Your task to perform on an android device: Show the shopping cart on amazon.com. Add "macbook pro" to the cart on amazon.com Image 0: 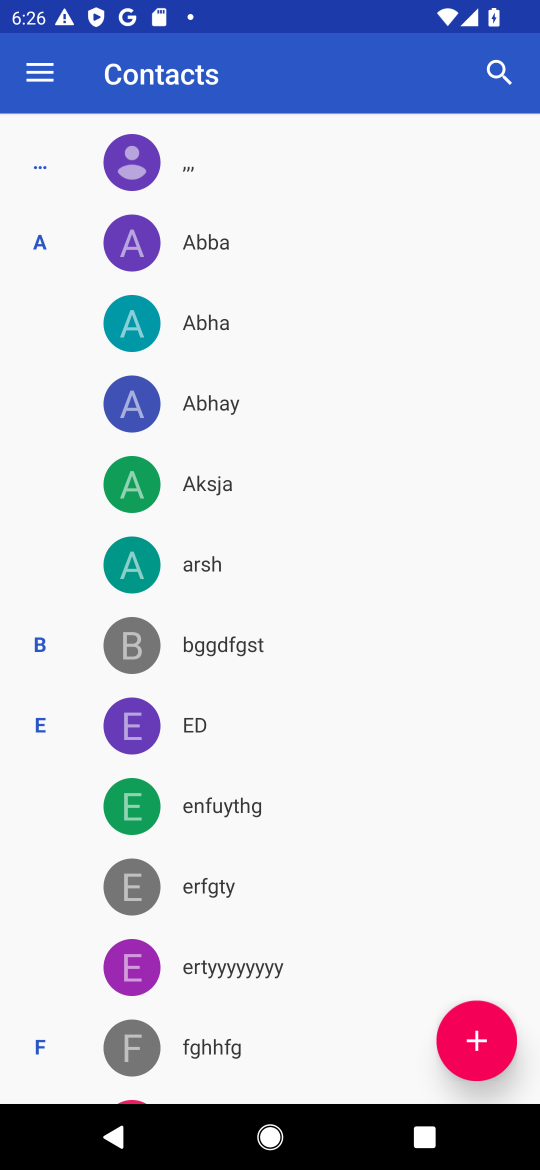
Step 0: press home button
Your task to perform on an android device: Show the shopping cart on amazon.com. Add "macbook pro" to the cart on amazon.com Image 1: 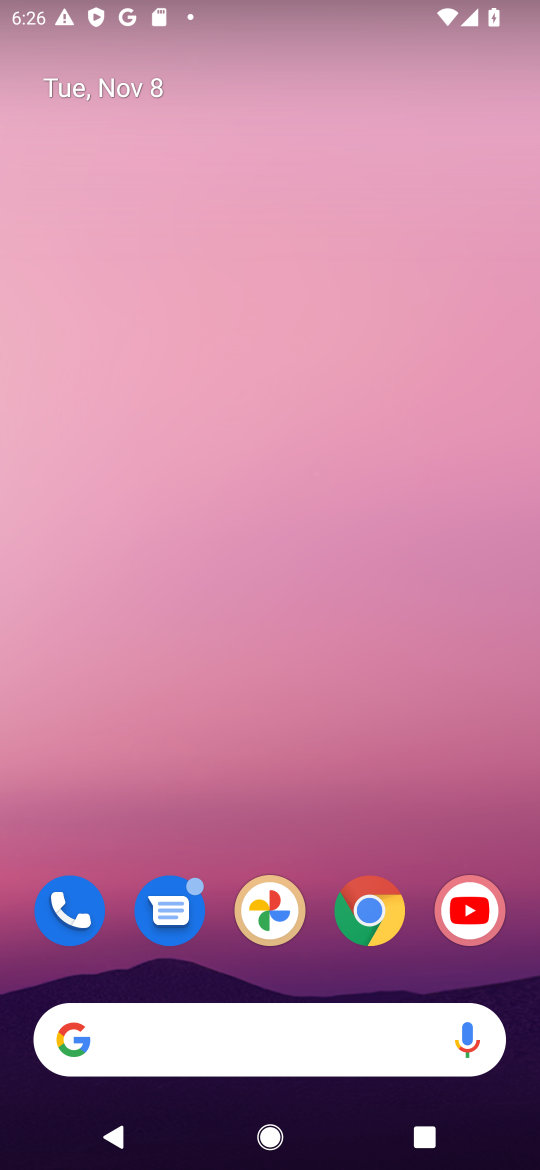
Step 1: click (365, 909)
Your task to perform on an android device: Show the shopping cart on amazon.com. Add "macbook pro" to the cart on amazon.com Image 2: 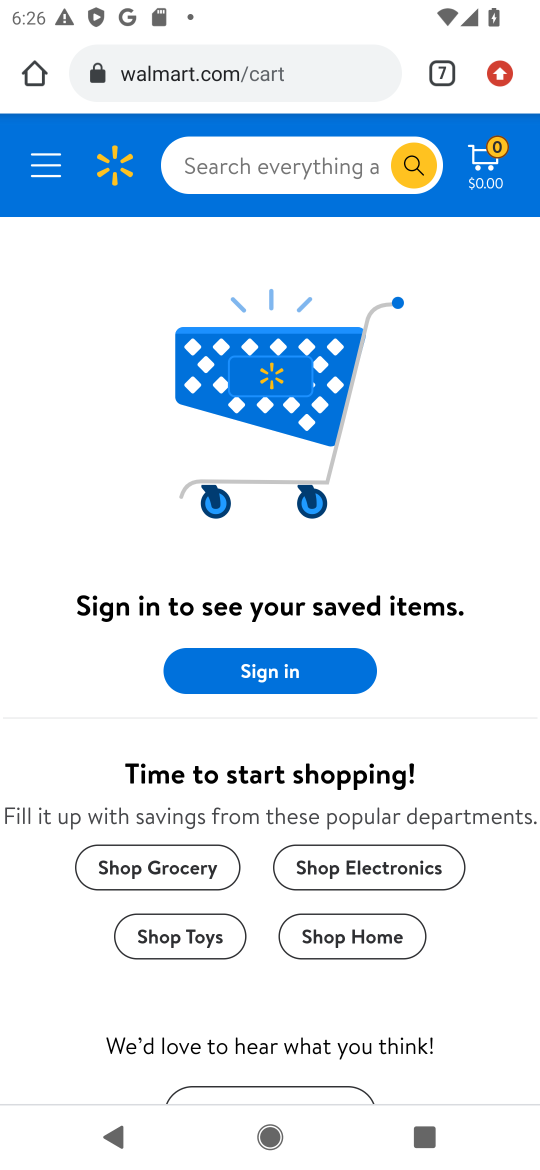
Step 2: click (442, 66)
Your task to perform on an android device: Show the shopping cart on amazon.com. Add "macbook pro" to the cart on amazon.com Image 3: 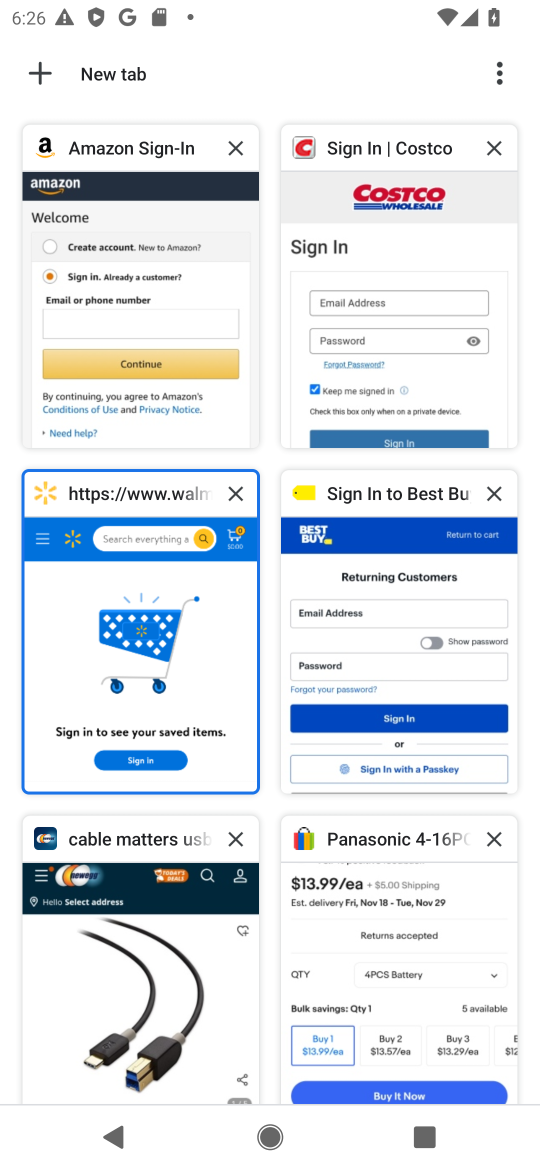
Step 3: click (158, 284)
Your task to perform on an android device: Show the shopping cart on amazon.com. Add "macbook pro" to the cart on amazon.com Image 4: 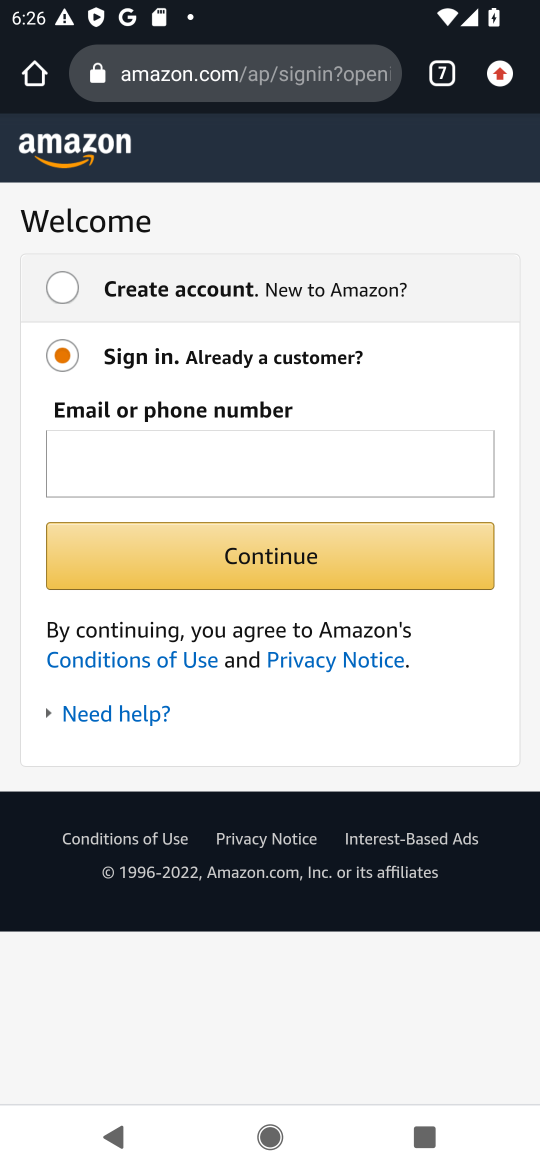
Step 4: press back button
Your task to perform on an android device: Show the shopping cart on amazon.com. Add "macbook pro" to the cart on amazon.com Image 5: 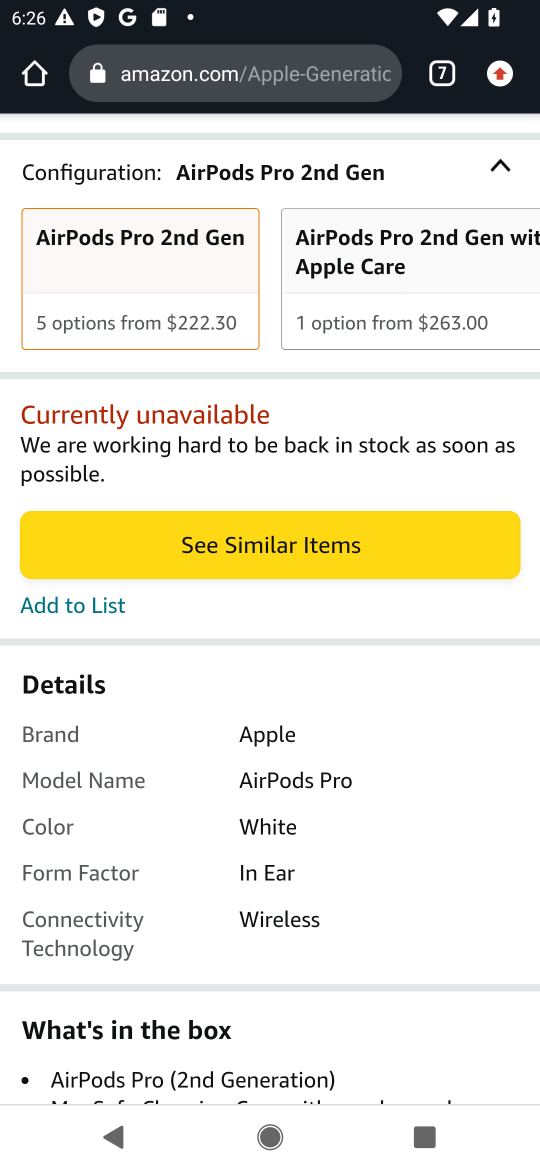
Step 5: drag from (261, 163) to (242, 741)
Your task to perform on an android device: Show the shopping cart on amazon.com. Add "macbook pro" to the cart on amazon.com Image 6: 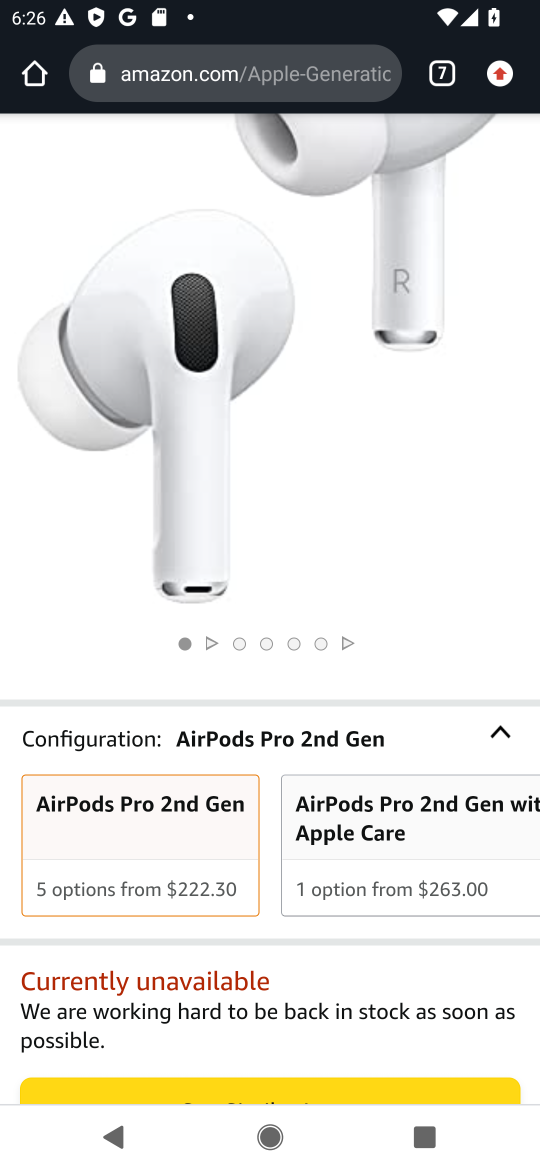
Step 6: drag from (341, 253) to (274, 872)
Your task to perform on an android device: Show the shopping cart on amazon.com. Add "macbook pro" to the cart on amazon.com Image 7: 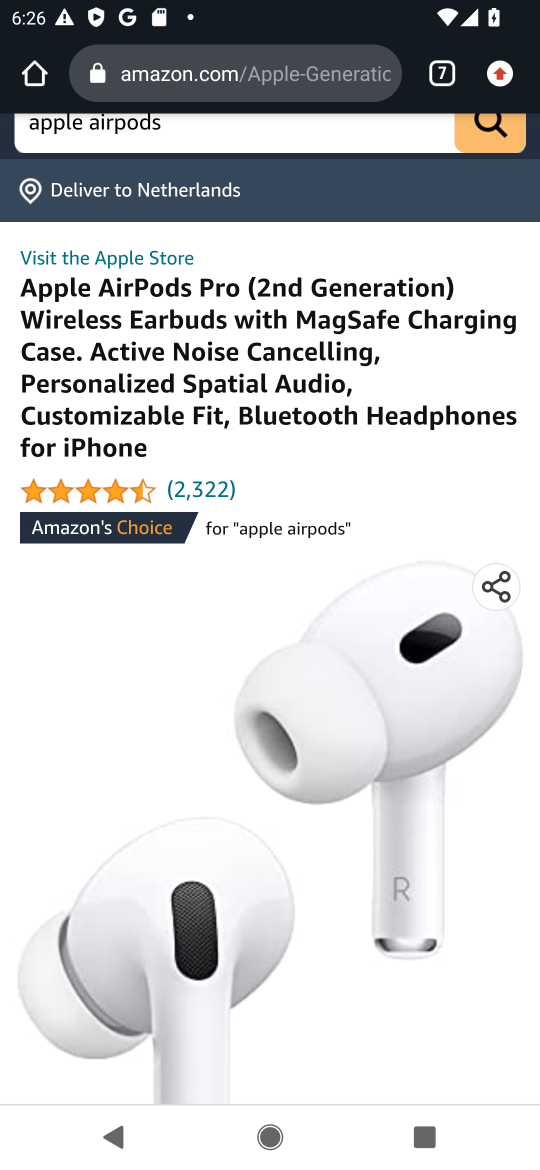
Step 7: drag from (274, 313) to (233, 677)
Your task to perform on an android device: Show the shopping cart on amazon.com. Add "macbook pro" to the cart on amazon.com Image 8: 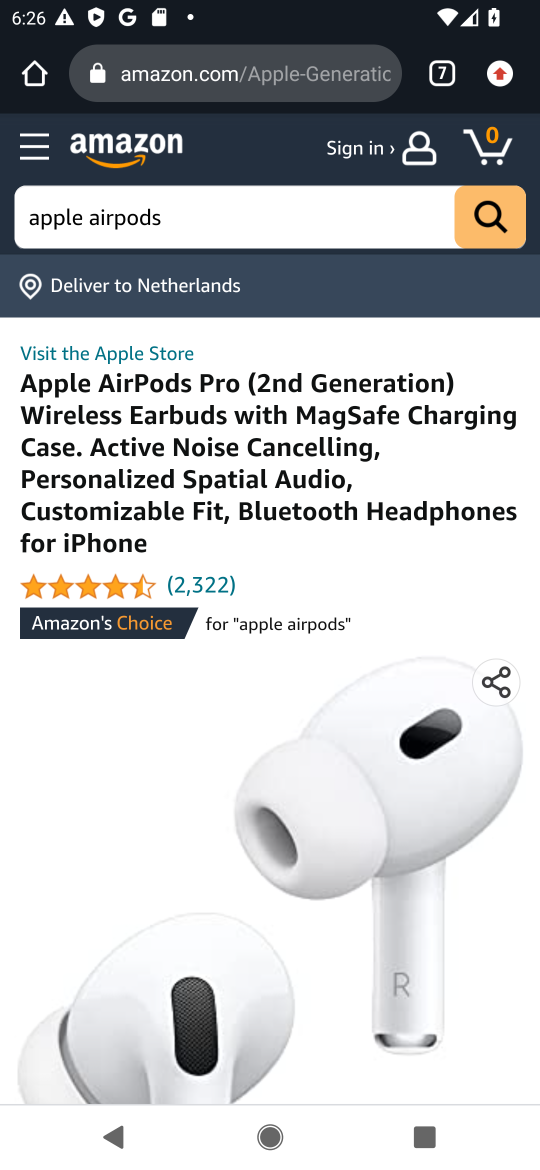
Step 8: click (173, 207)
Your task to perform on an android device: Show the shopping cart on amazon.com. Add "macbook pro" to the cart on amazon.com Image 9: 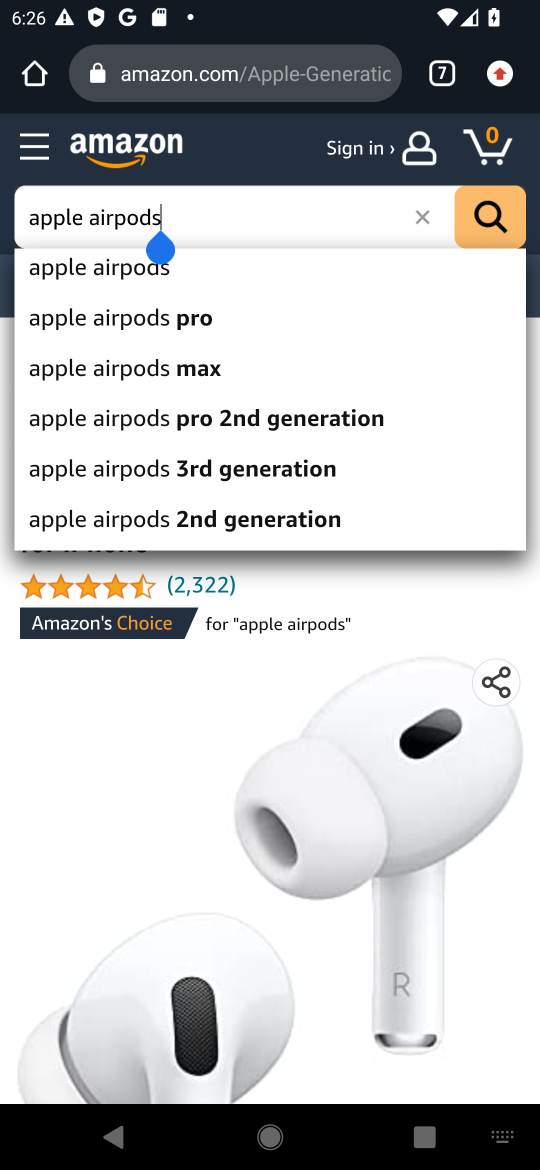
Step 9: click (429, 218)
Your task to perform on an android device: Show the shopping cart on amazon.com. Add "macbook pro" to the cart on amazon.com Image 10: 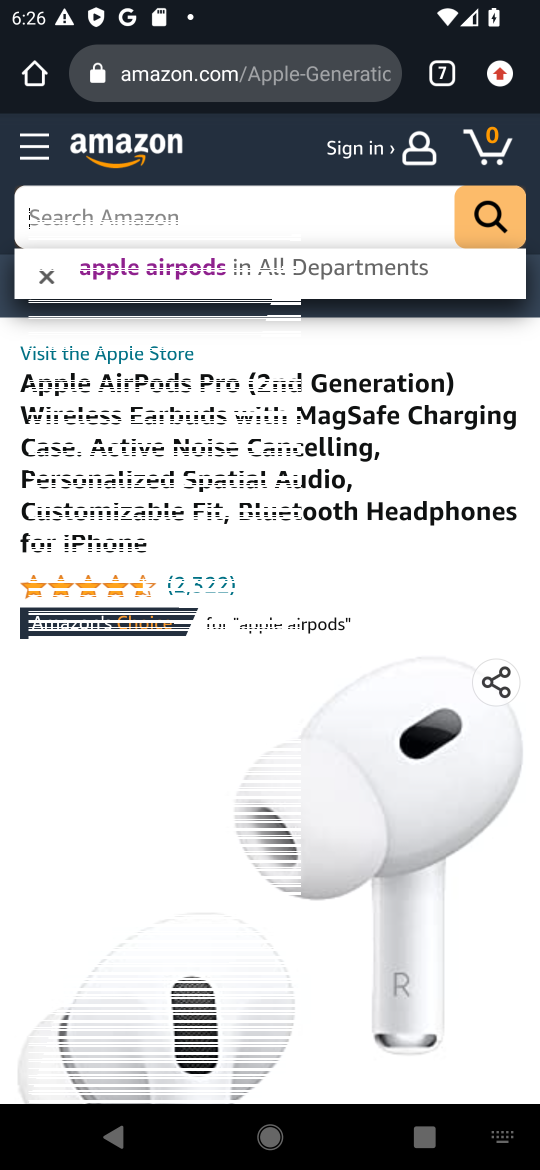
Step 10: type "macbook pro"
Your task to perform on an android device: Show the shopping cart on amazon.com. Add "macbook pro" to the cart on amazon.com Image 11: 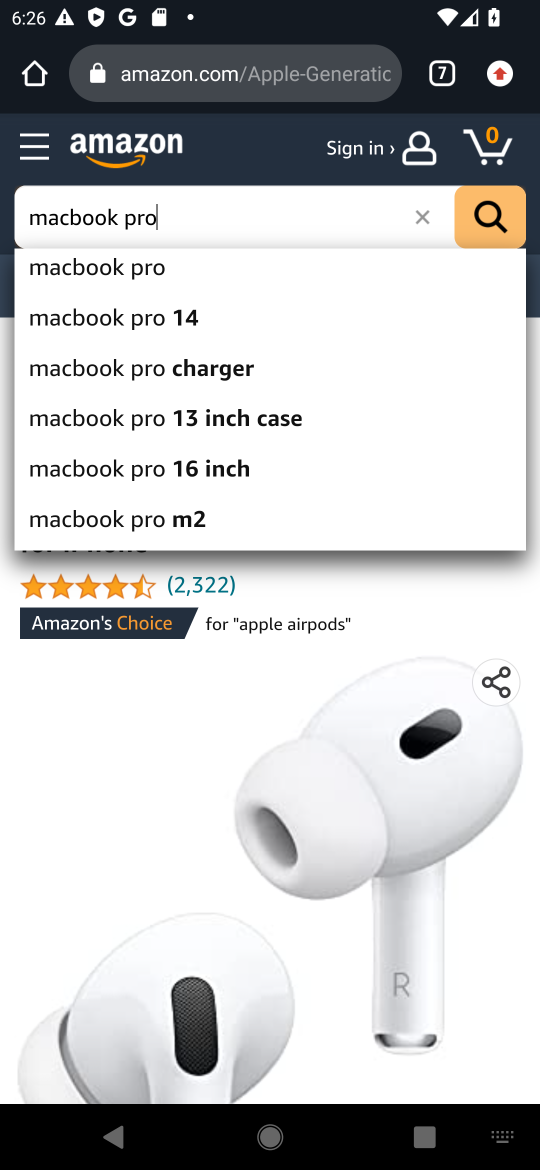
Step 11: click (116, 268)
Your task to perform on an android device: Show the shopping cart on amazon.com. Add "macbook pro" to the cart on amazon.com Image 12: 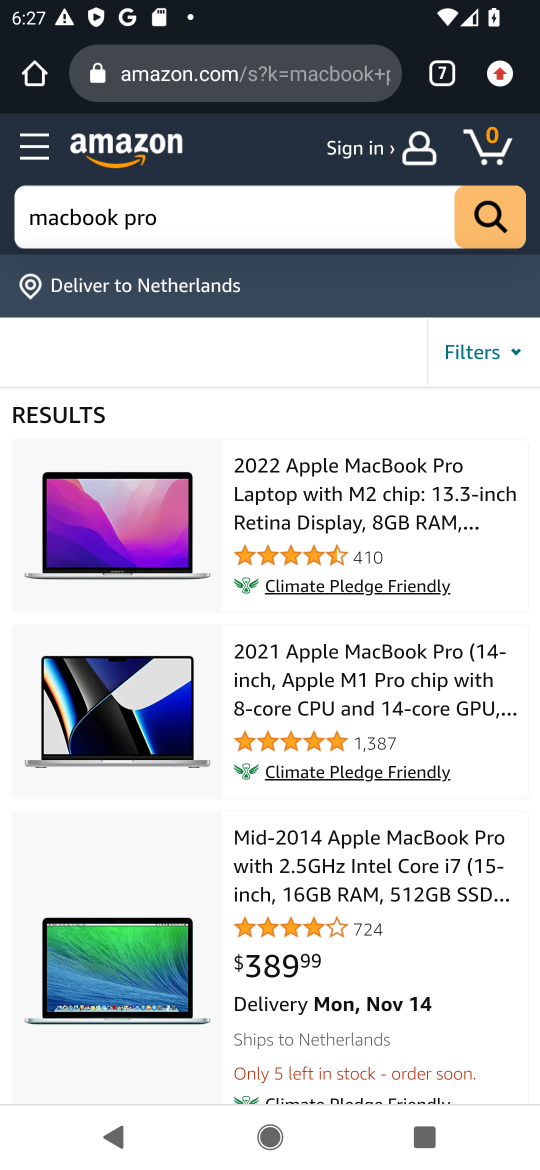
Step 12: click (288, 522)
Your task to perform on an android device: Show the shopping cart on amazon.com. Add "macbook pro" to the cart on amazon.com Image 13: 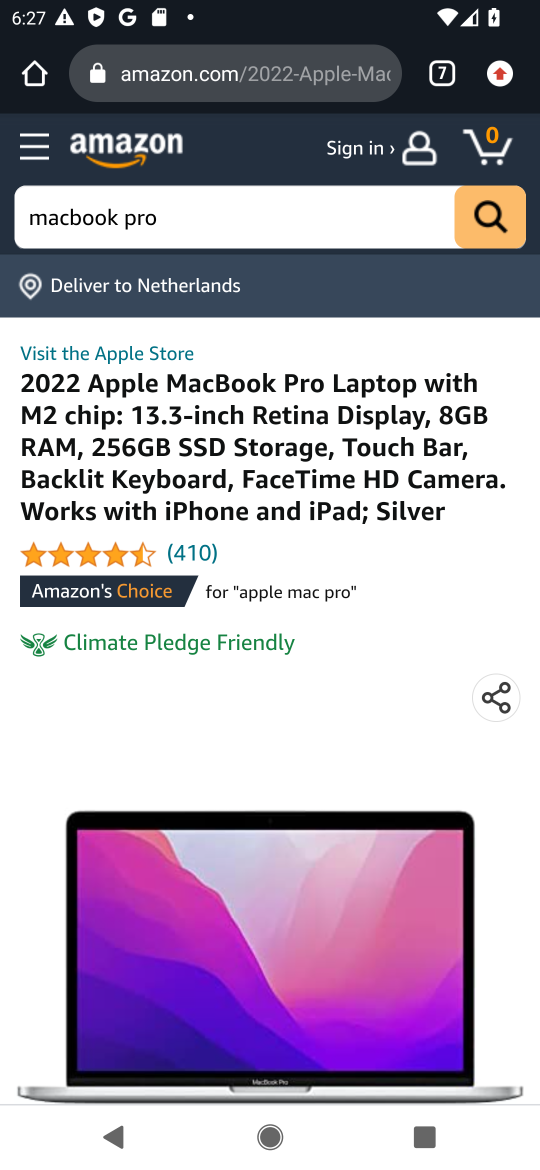
Step 13: drag from (367, 772) to (373, 378)
Your task to perform on an android device: Show the shopping cart on amazon.com. Add "macbook pro" to the cart on amazon.com Image 14: 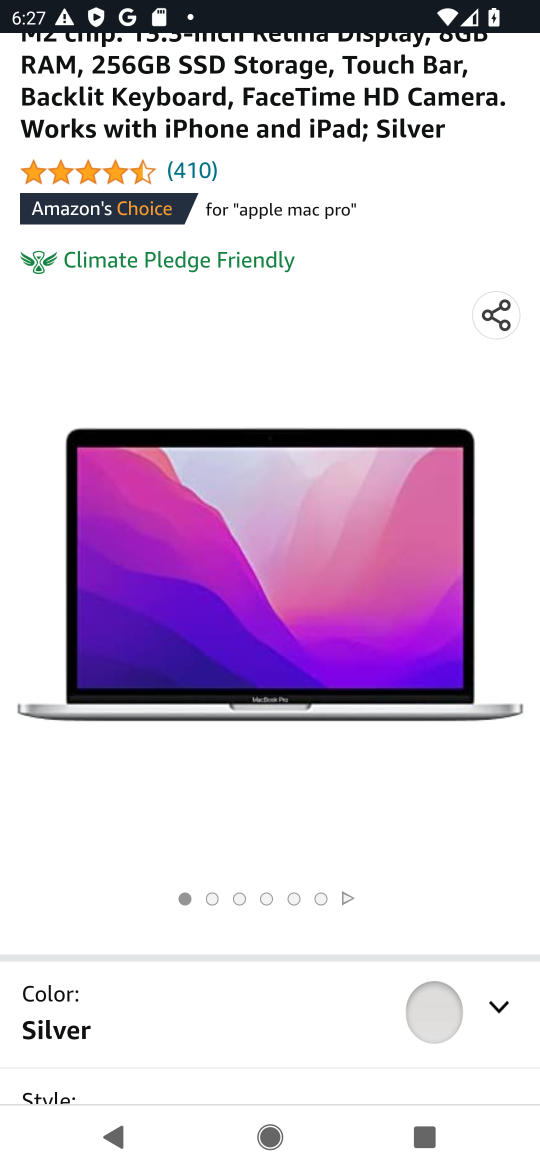
Step 14: drag from (296, 949) to (247, 258)
Your task to perform on an android device: Show the shopping cart on amazon.com. Add "macbook pro" to the cart on amazon.com Image 15: 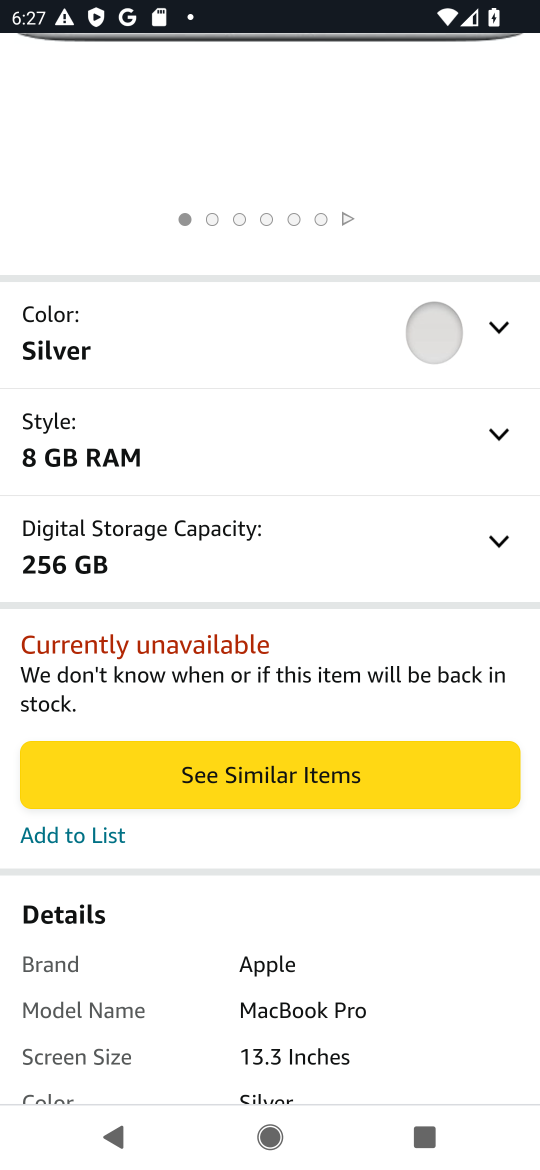
Step 15: click (319, 788)
Your task to perform on an android device: Show the shopping cart on amazon.com. Add "macbook pro" to the cart on amazon.com Image 16: 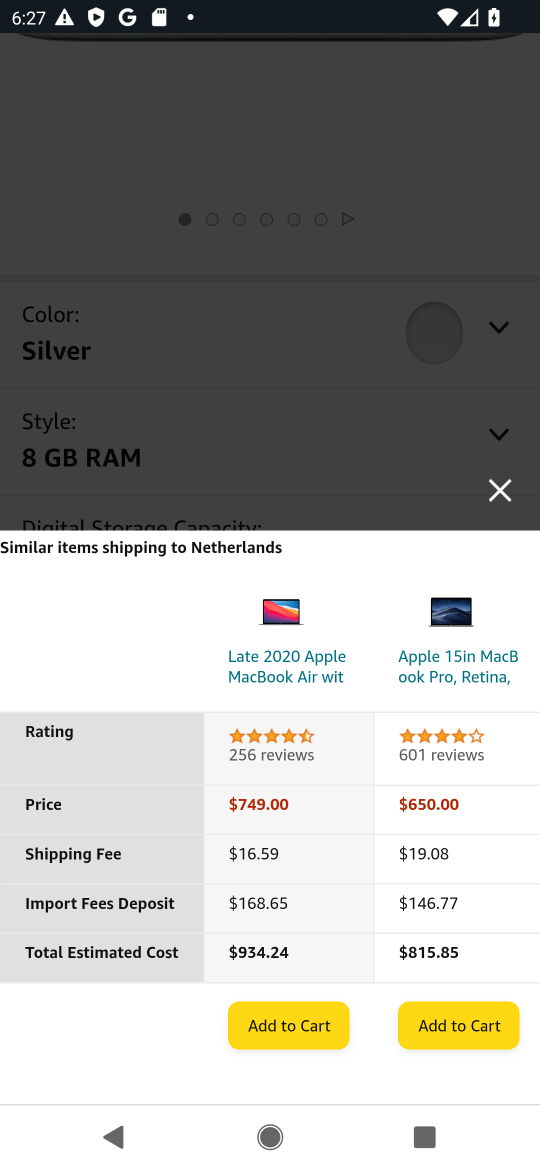
Step 16: click (278, 1018)
Your task to perform on an android device: Show the shopping cart on amazon.com. Add "macbook pro" to the cart on amazon.com Image 17: 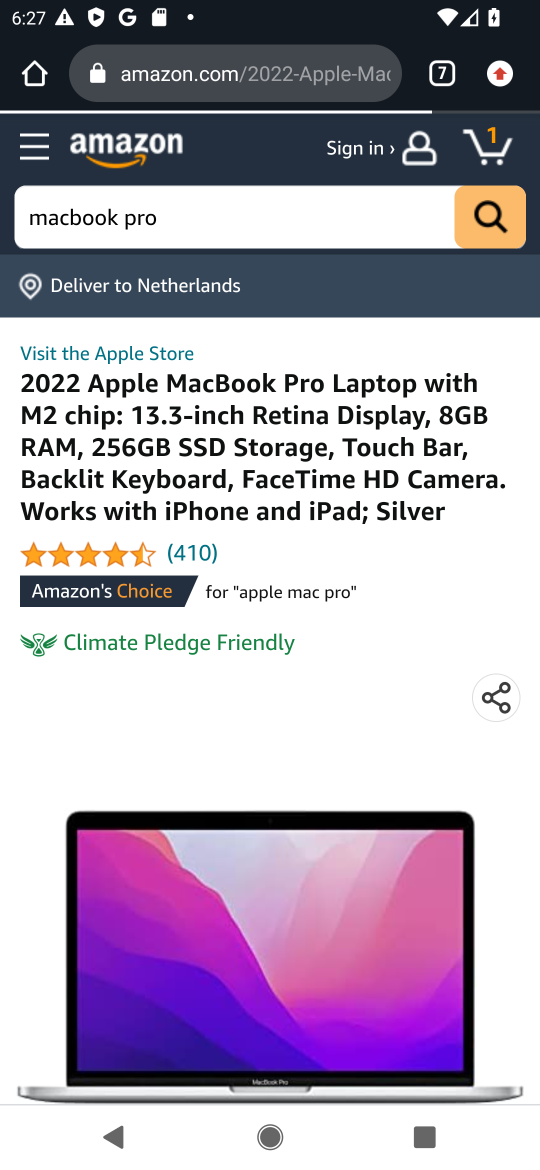
Step 17: task complete